Your task to perform on an android device: Go to calendar. Show me events next week Image 0: 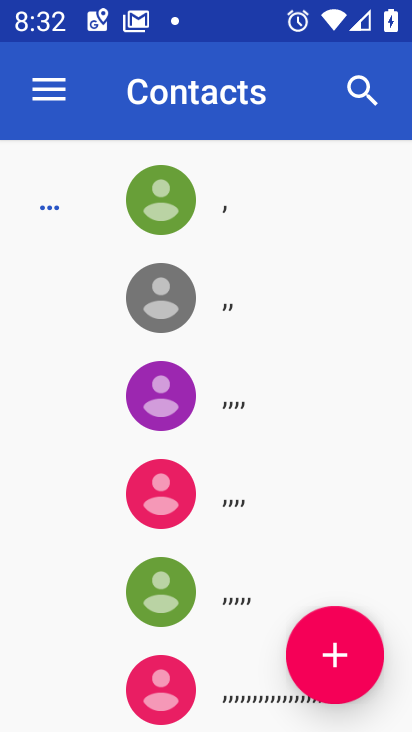
Step 0: press home button
Your task to perform on an android device: Go to calendar. Show me events next week Image 1: 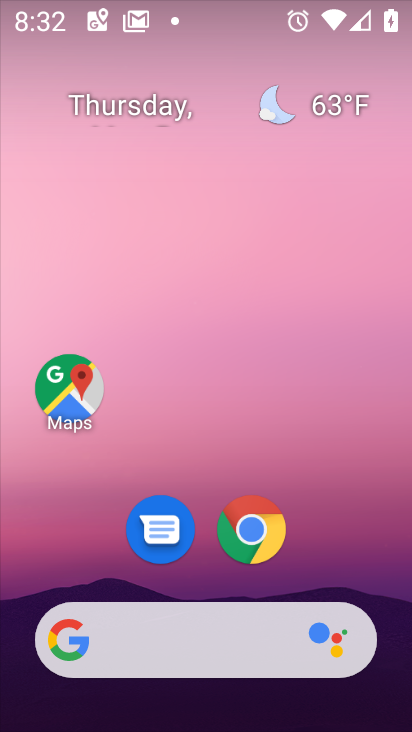
Step 1: drag from (202, 573) to (230, 195)
Your task to perform on an android device: Go to calendar. Show me events next week Image 2: 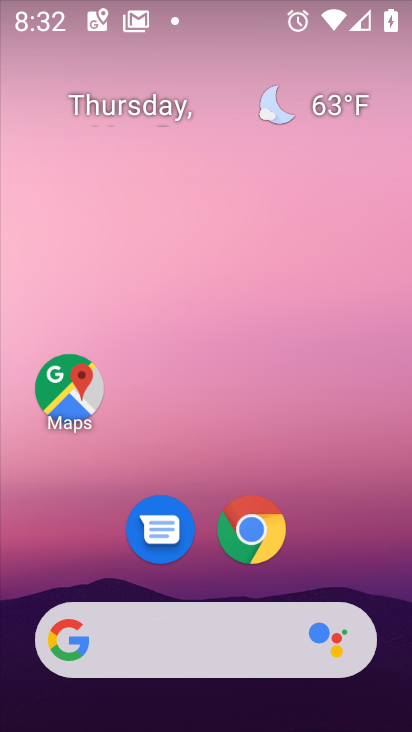
Step 2: drag from (189, 574) to (193, 185)
Your task to perform on an android device: Go to calendar. Show me events next week Image 3: 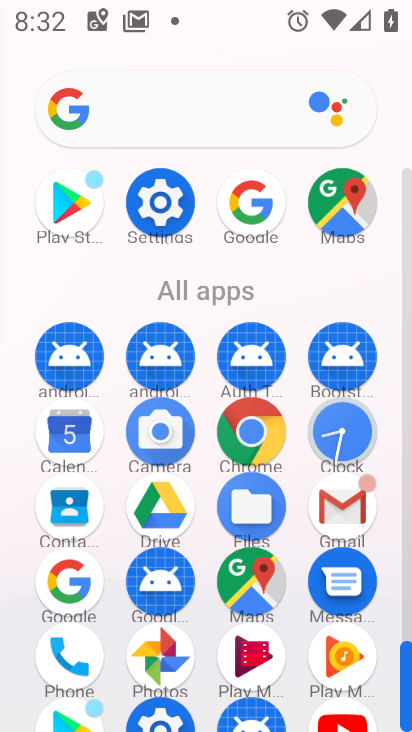
Step 3: click (71, 431)
Your task to perform on an android device: Go to calendar. Show me events next week Image 4: 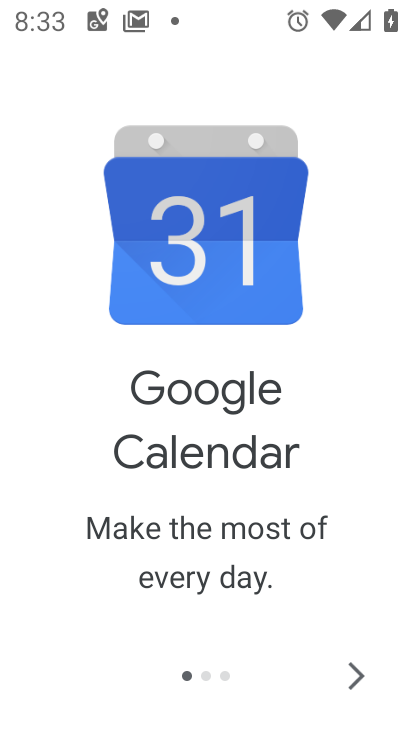
Step 4: click (343, 681)
Your task to perform on an android device: Go to calendar. Show me events next week Image 5: 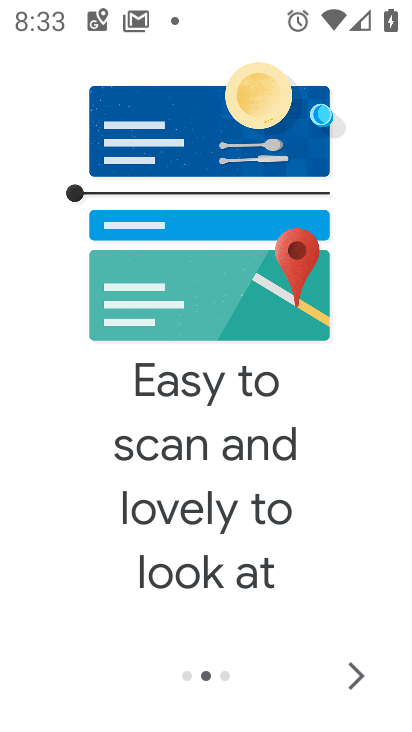
Step 5: click (343, 681)
Your task to perform on an android device: Go to calendar. Show me events next week Image 6: 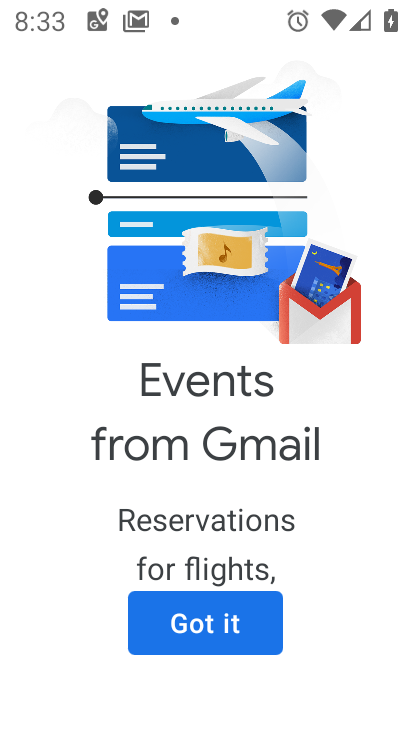
Step 6: click (343, 681)
Your task to perform on an android device: Go to calendar. Show me events next week Image 7: 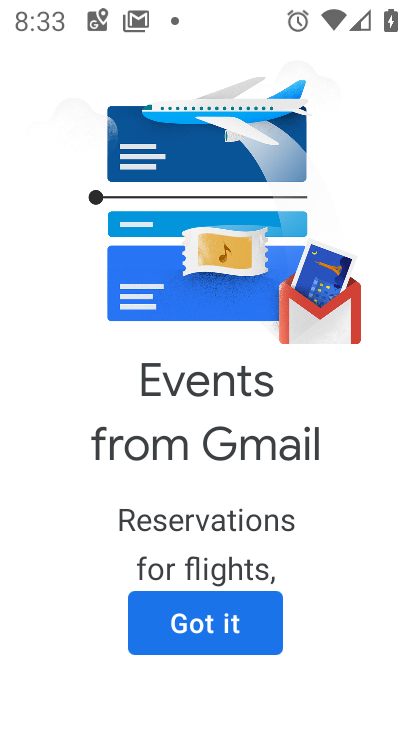
Step 7: click (208, 621)
Your task to perform on an android device: Go to calendar. Show me events next week Image 8: 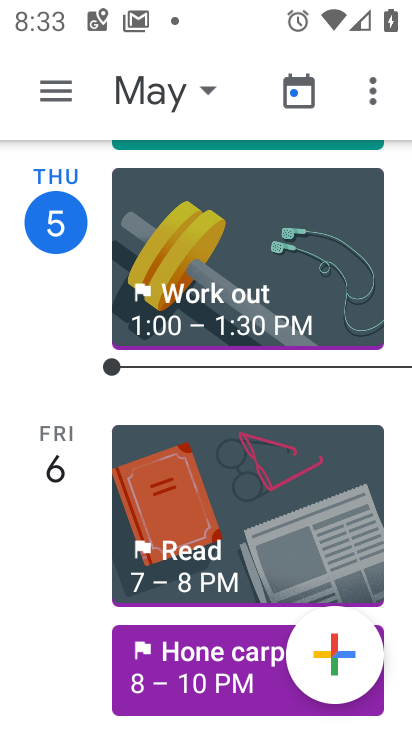
Step 8: click (179, 98)
Your task to perform on an android device: Go to calendar. Show me events next week Image 9: 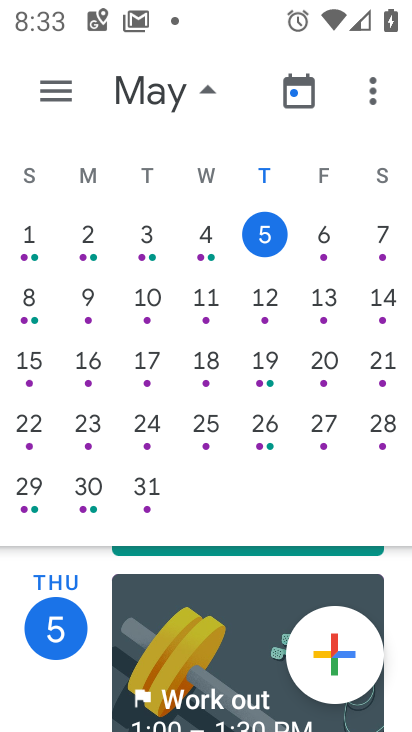
Step 9: click (31, 304)
Your task to perform on an android device: Go to calendar. Show me events next week Image 10: 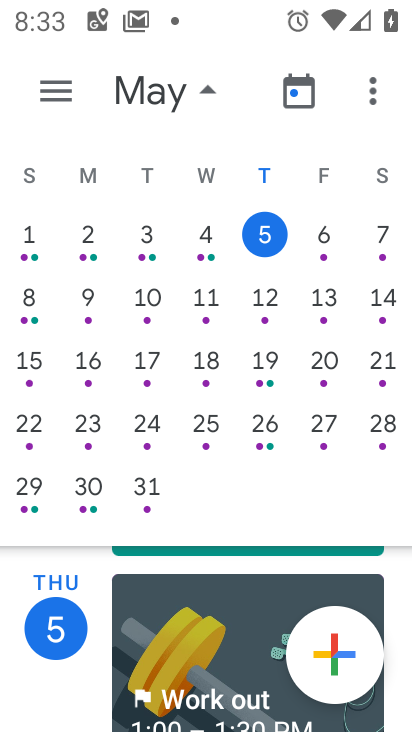
Step 10: click (28, 297)
Your task to perform on an android device: Go to calendar. Show me events next week Image 11: 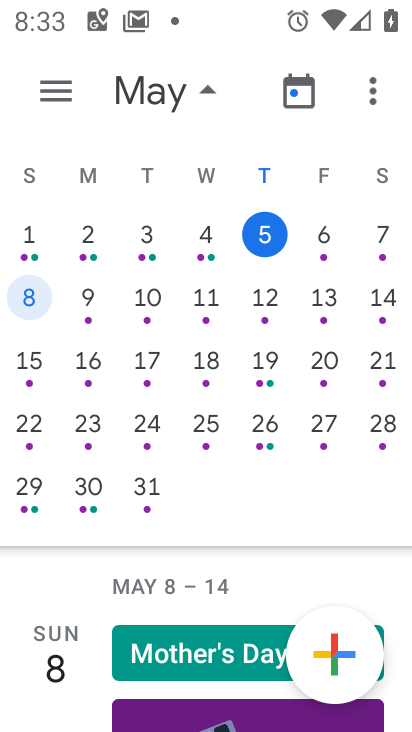
Step 11: task complete